Your task to perform on an android device: Open Google Chrome and open the bookmarks view Image 0: 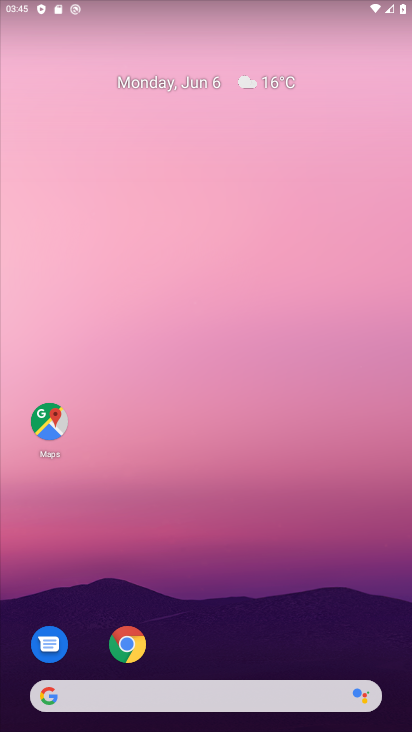
Step 0: click (119, 642)
Your task to perform on an android device: Open Google Chrome and open the bookmarks view Image 1: 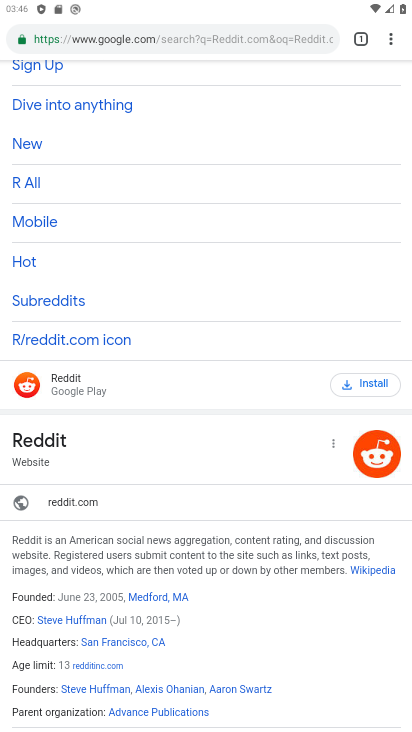
Step 1: click (387, 39)
Your task to perform on an android device: Open Google Chrome and open the bookmarks view Image 2: 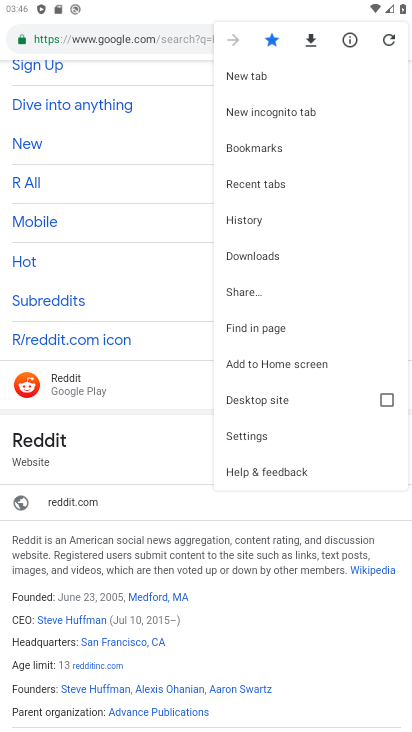
Step 2: click (252, 142)
Your task to perform on an android device: Open Google Chrome and open the bookmarks view Image 3: 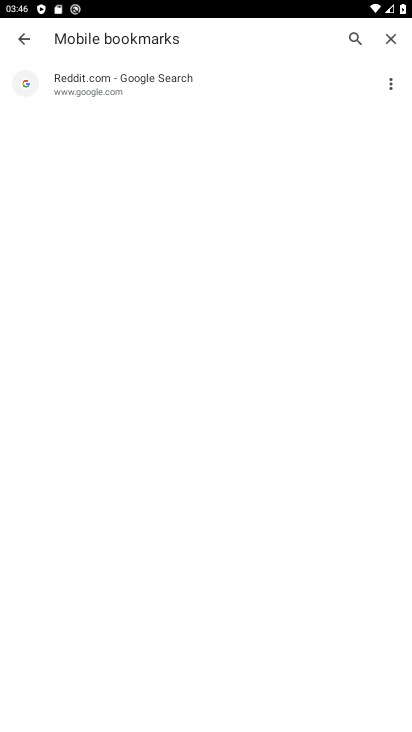
Step 3: click (147, 88)
Your task to perform on an android device: Open Google Chrome and open the bookmarks view Image 4: 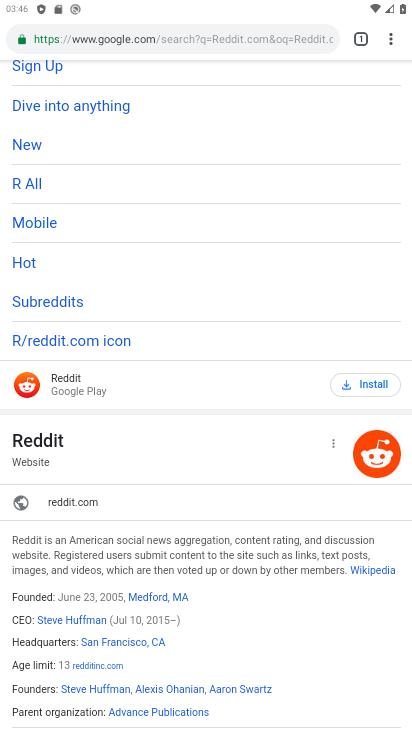
Step 4: task complete